Your task to perform on an android device: toggle notification dots Image 0: 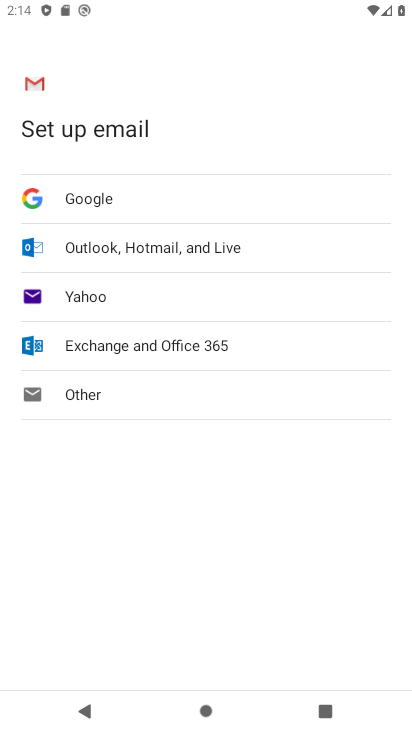
Step 0: press home button
Your task to perform on an android device: toggle notification dots Image 1: 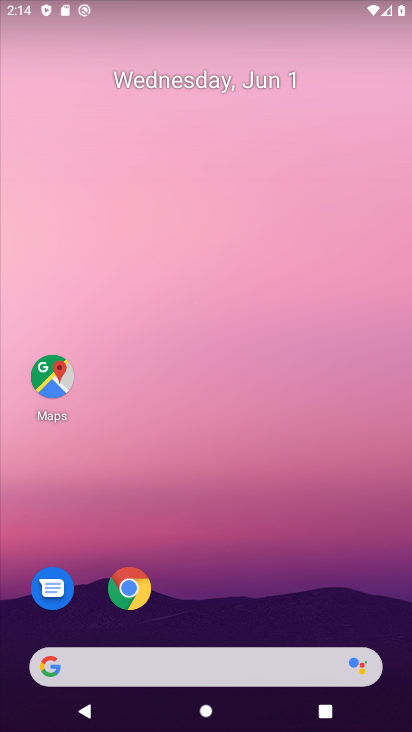
Step 1: drag from (271, 490) to (229, 153)
Your task to perform on an android device: toggle notification dots Image 2: 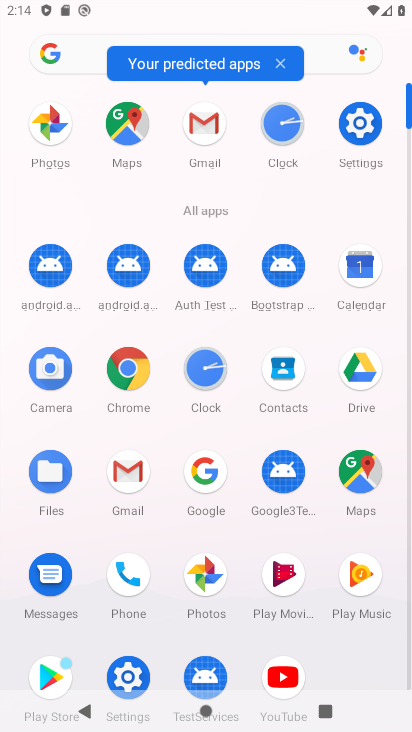
Step 2: click (354, 126)
Your task to perform on an android device: toggle notification dots Image 3: 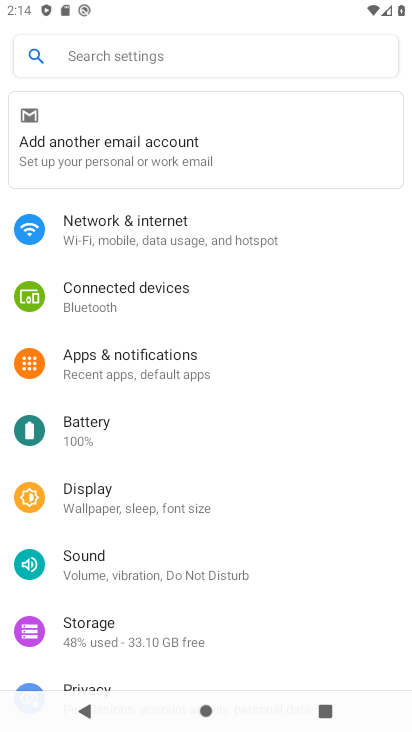
Step 3: click (135, 351)
Your task to perform on an android device: toggle notification dots Image 4: 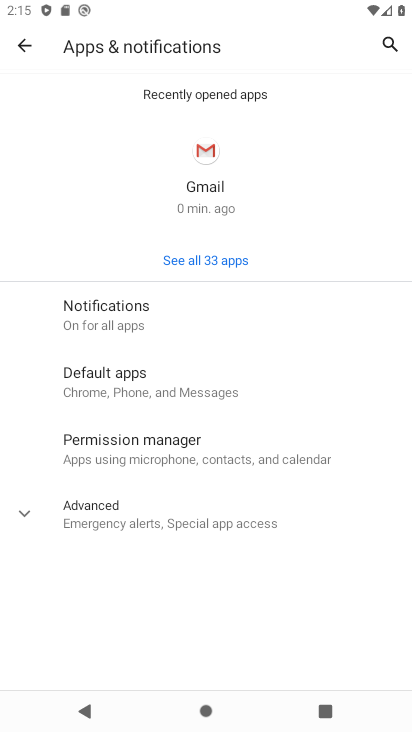
Step 4: click (108, 316)
Your task to perform on an android device: toggle notification dots Image 5: 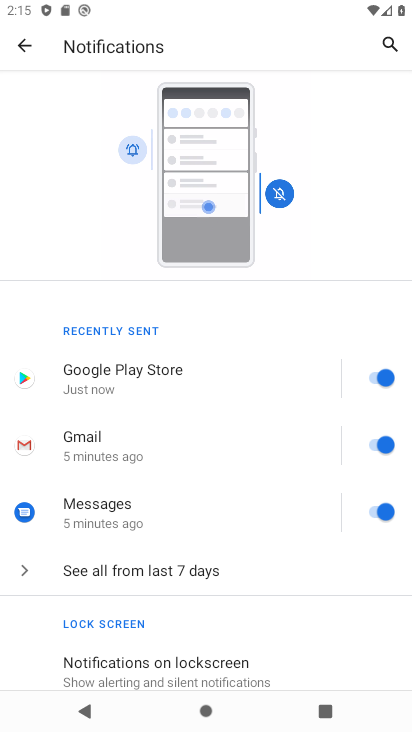
Step 5: drag from (258, 589) to (236, 48)
Your task to perform on an android device: toggle notification dots Image 6: 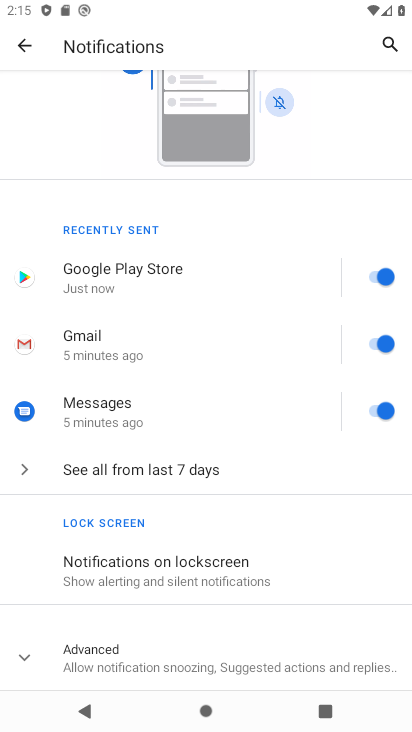
Step 6: click (51, 648)
Your task to perform on an android device: toggle notification dots Image 7: 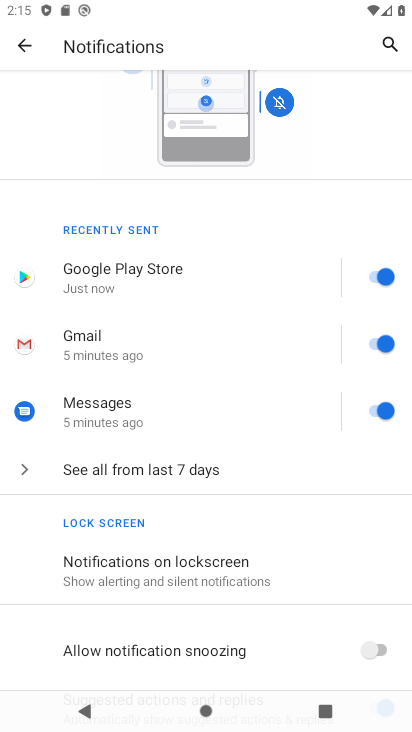
Step 7: drag from (189, 602) to (173, 229)
Your task to perform on an android device: toggle notification dots Image 8: 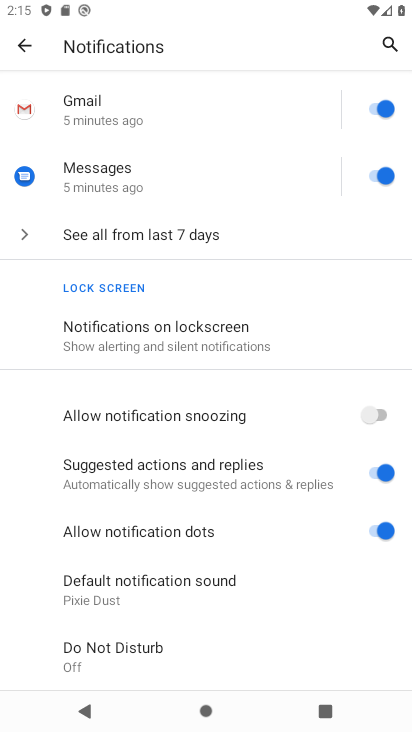
Step 8: click (377, 525)
Your task to perform on an android device: toggle notification dots Image 9: 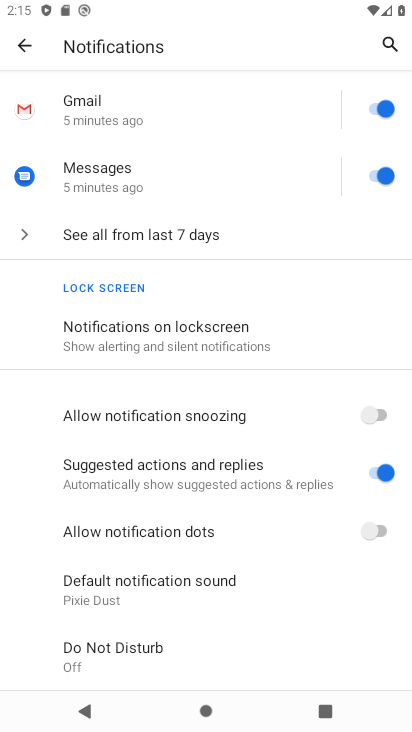
Step 9: task complete